Your task to perform on an android device: Search for pizza restaurants on Maps Image 0: 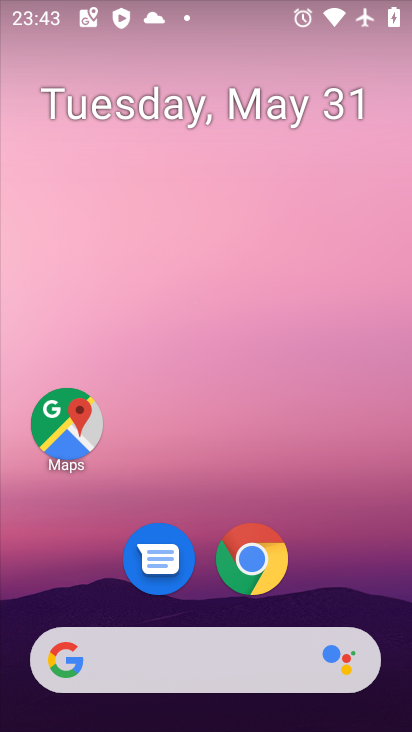
Step 0: click (67, 429)
Your task to perform on an android device: Search for pizza restaurants on Maps Image 1: 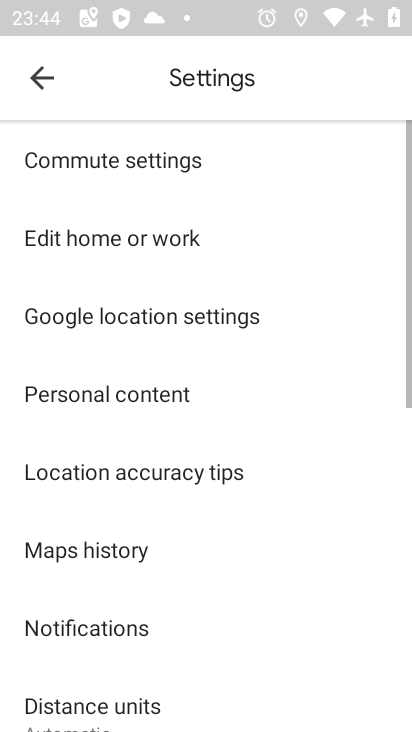
Step 1: press back button
Your task to perform on an android device: Search for pizza restaurants on Maps Image 2: 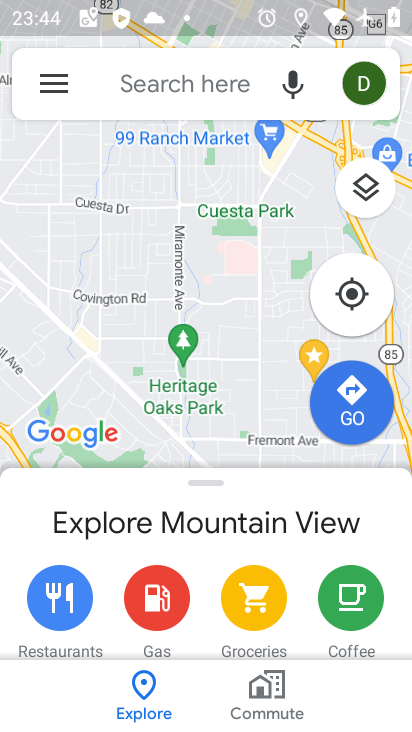
Step 2: click (176, 91)
Your task to perform on an android device: Search for pizza restaurants on Maps Image 3: 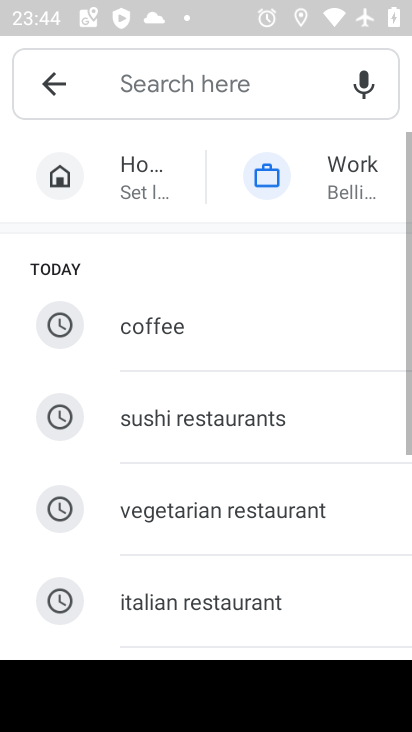
Step 3: drag from (202, 619) to (217, 214)
Your task to perform on an android device: Search for pizza restaurants on Maps Image 4: 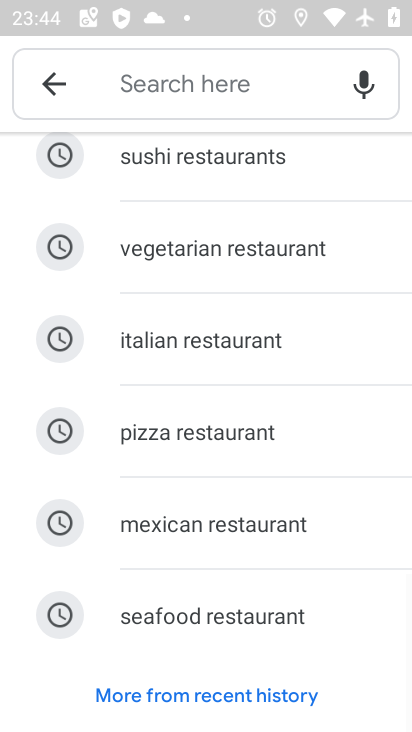
Step 4: click (200, 435)
Your task to perform on an android device: Search for pizza restaurants on Maps Image 5: 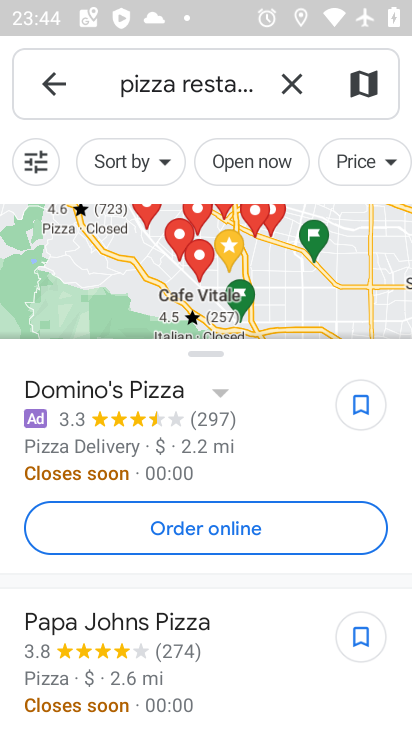
Step 5: task complete